Your task to perform on an android device: empty trash in the gmail app Image 0: 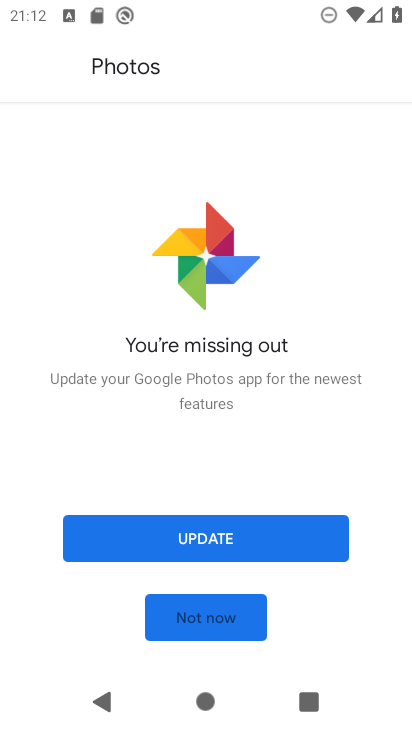
Step 0: press home button
Your task to perform on an android device: empty trash in the gmail app Image 1: 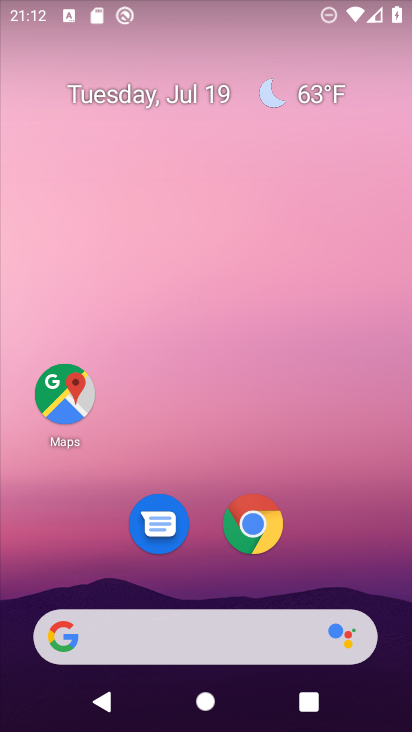
Step 1: drag from (312, 539) to (362, 102)
Your task to perform on an android device: empty trash in the gmail app Image 2: 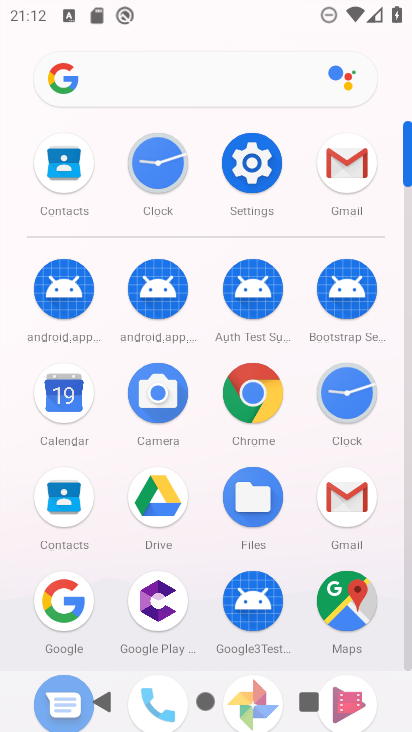
Step 2: click (358, 177)
Your task to perform on an android device: empty trash in the gmail app Image 3: 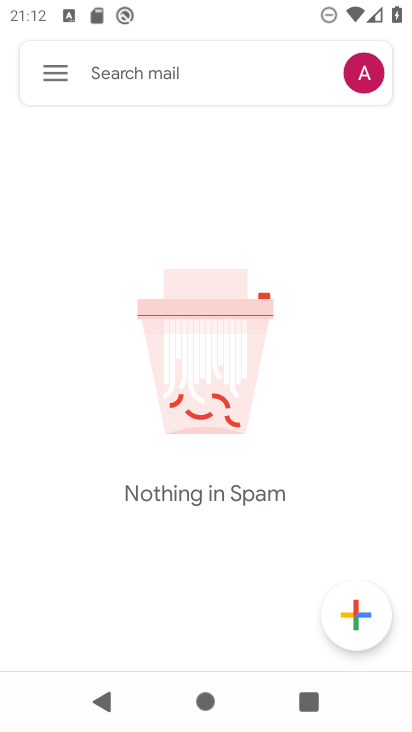
Step 3: click (61, 72)
Your task to perform on an android device: empty trash in the gmail app Image 4: 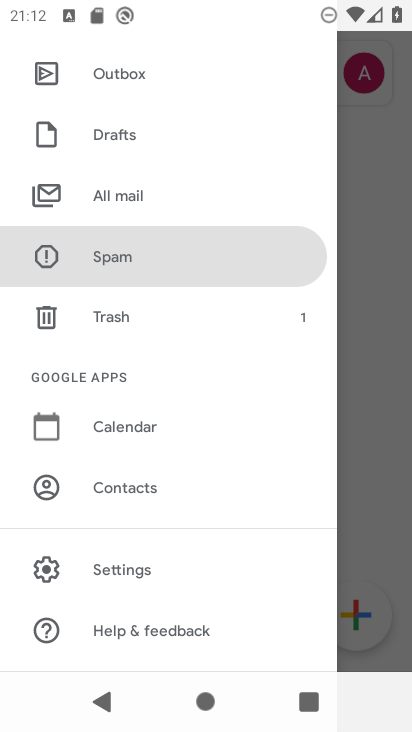
Step 4: click (113, 306)
Your task to perform on an android device: empty trash in the gmail app Image 5: 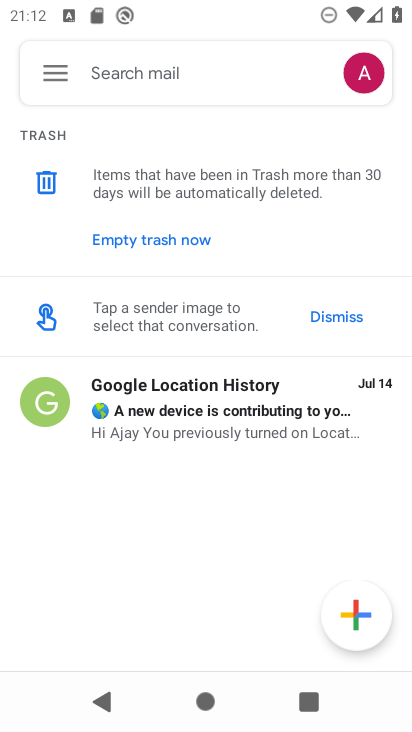
Step 5: click (128, 242)
Your task to perform on an android device: empty trash in the gmail app Image 6: 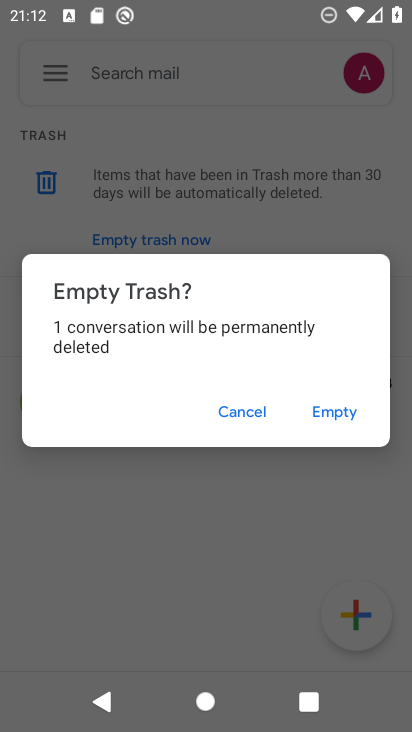
Step 6: click (343, 413)
Your task to perform on an android device: empty trash in the gmail app Image 7: 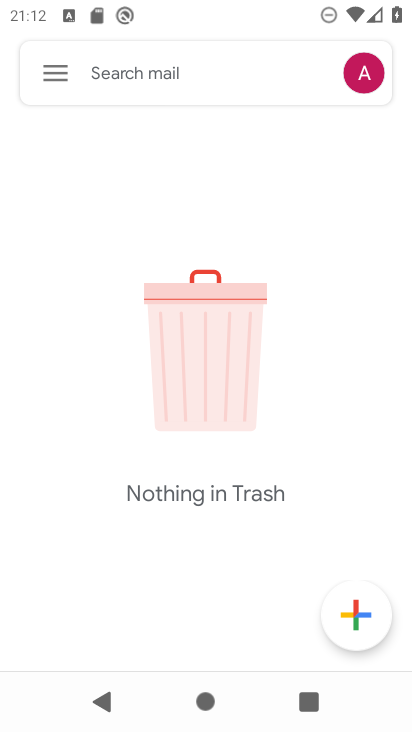
Step 7: task complete